Your task to perform on an android device: Empty the shopping cart on amazon.com. Search for usb-c to usb-a on amazon.com, select the first entry, add it to the cart, then select checkout. Image 0: 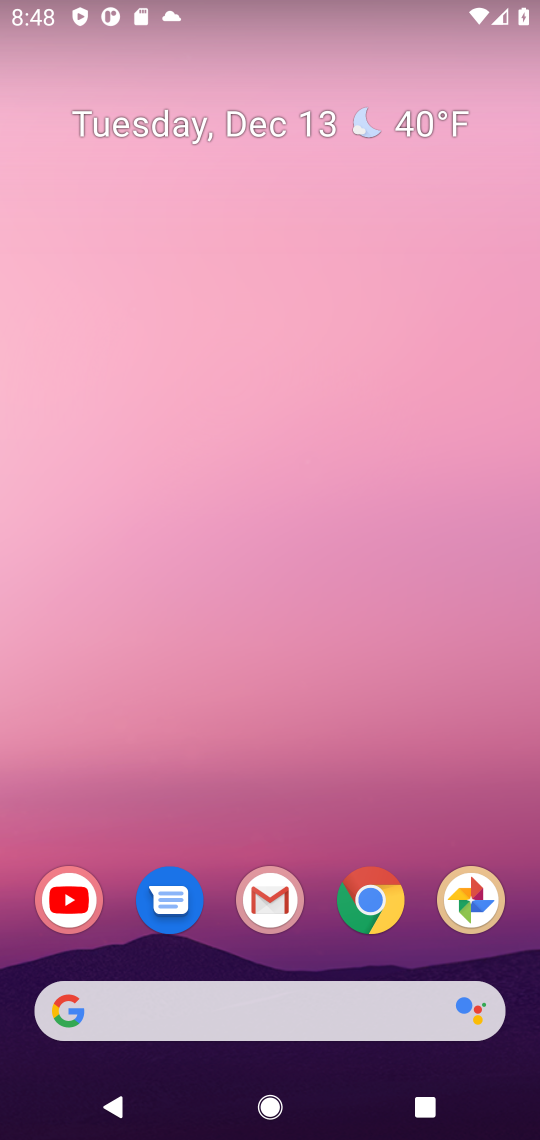
Step 0: click (371, 905)
Your task to perform on an android device: Empty the shopping cart on amazon.com. Search for usb-c to usb-a on amazon.com, select the first entry, add it to the cart, then select checkout. Image 1: 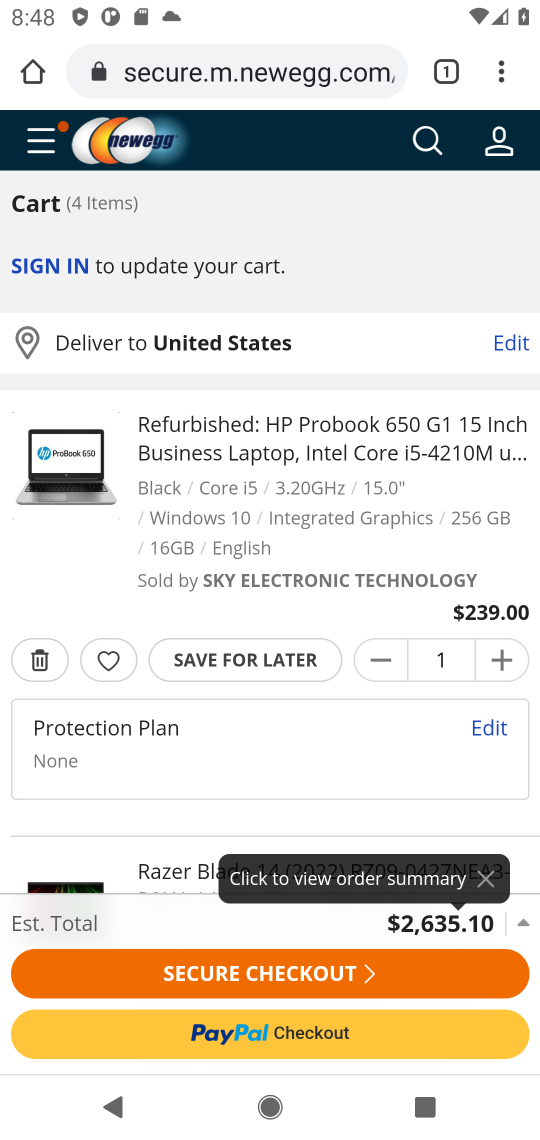
Step 1: click (271, 70)
Your task to perform on an android device: Empty the shopping cart on amazon.com. Search for usb-c to usb-a on amazon.com, select the first entry, add it to the cart, then select checkout. Image 2: 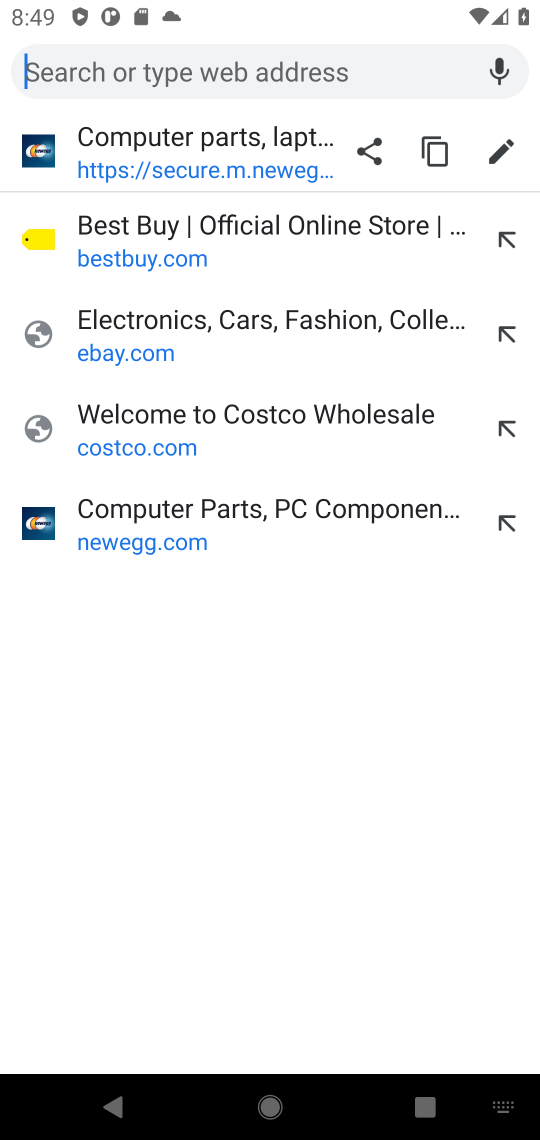
Step 2: type "AMAZON"
Your task to perform on an android device: Empty the shopping cart on amazon.com. Search for usb-c to usb-a on amazon.com, select the first entry, add it to the cart, then select checkout. Image 3: 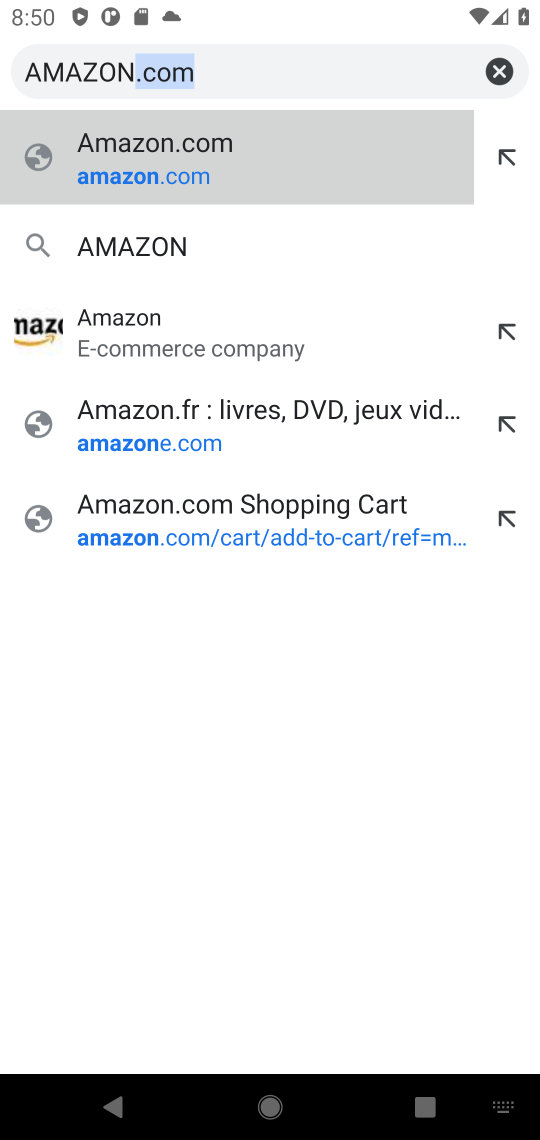
Step 3: click (114, 170)
Your task to perform on an android device: Empty the shopping cart on amazon.com. Search for usb-c to usb-a on amazon.com, select the first entry, add it to the cart, then select checkout. Image 4: 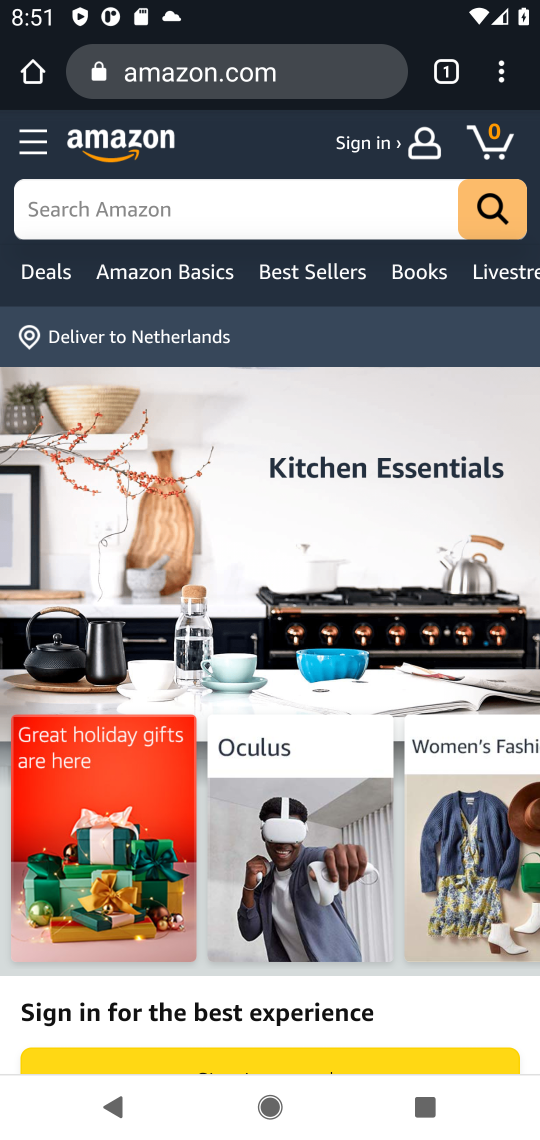
Step 4: click (287, 212)
Your task to perform on an android device: Empty the shopping cart on amazon.com. Search for usb-c to usb-a on amazon.com, select the first entry, add it to the cart, then select checkout. Image 5: 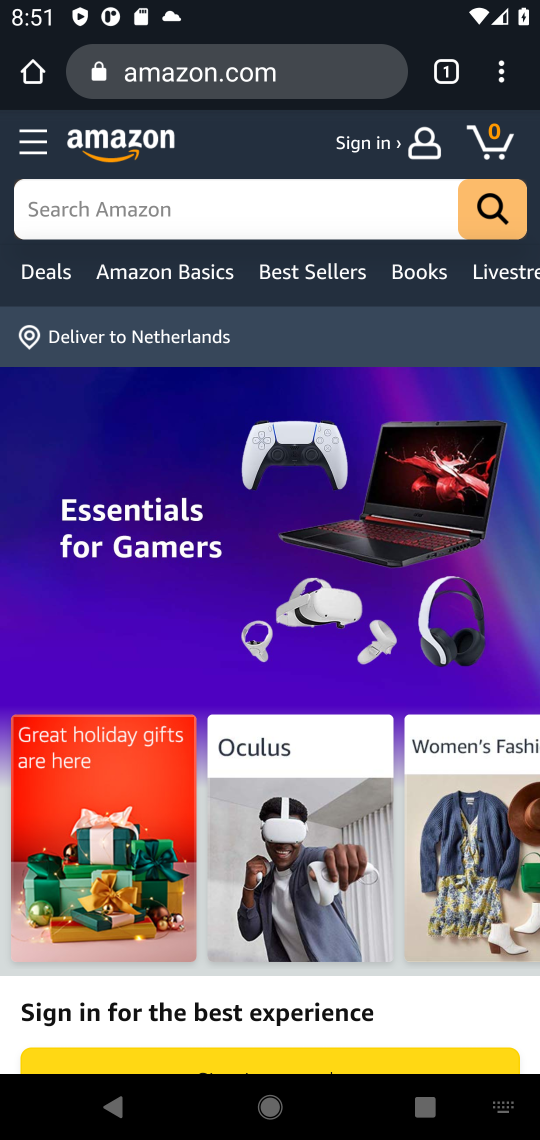
Step 5: type "usb-c to usb-a"
Your task to perform on an android device: Empty the shopping cart on amazon.com. Search for usb-c to usb-a on amazon.com, select the first entry, add it to the cart, then select checkout. Image 6: 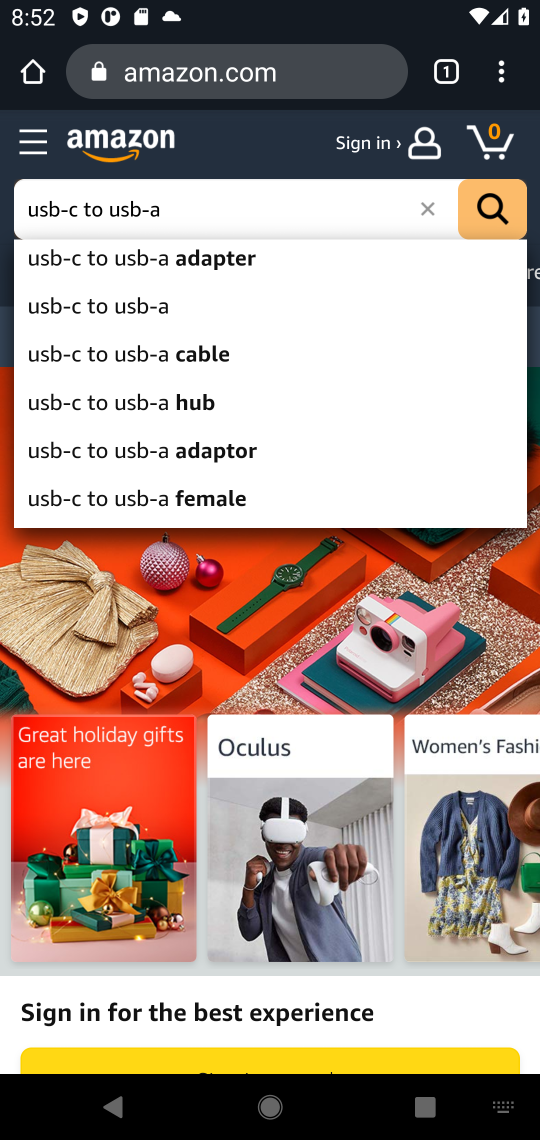
Step 6: click (162, 260)
Your task to perform on an android device: Empty the shopping cart on amazon.com. Search for usb-c to usb-a on amazon.com, select the first entry, add it to the cart, then select checkout. Image 7: 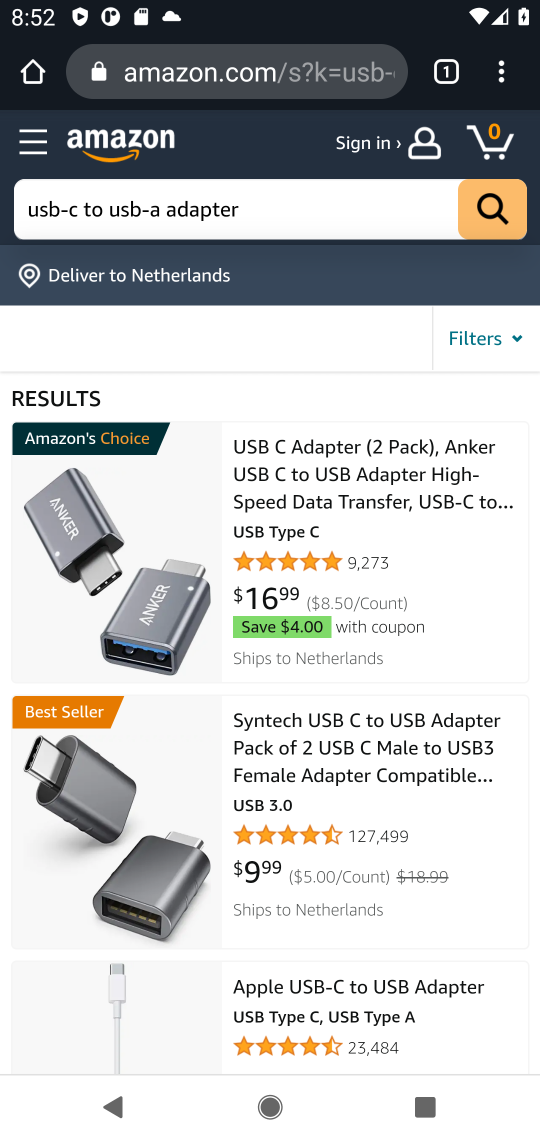
Step 7: click (413, 500)
Your task to perform on an android device: Empty the shopping cart on amazon.com. Search for usb-c to usb-a on amazon.com, select the first entry, add it to the cart, then select checkout. Image 8: 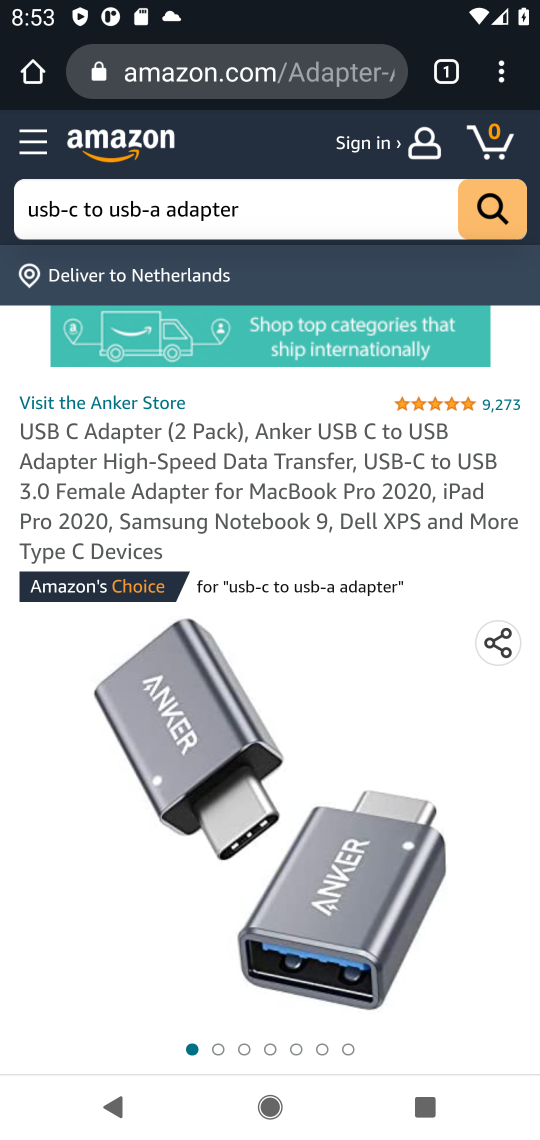
Step 8: drag from (366, 970) to (278, 159)
Your task to perform on an android device: Empty the shopping cart on amazon.com. Search for usb-c to usb-a on amazon.com, select the first entry, add it to the cart, then select checkout. Image 9: 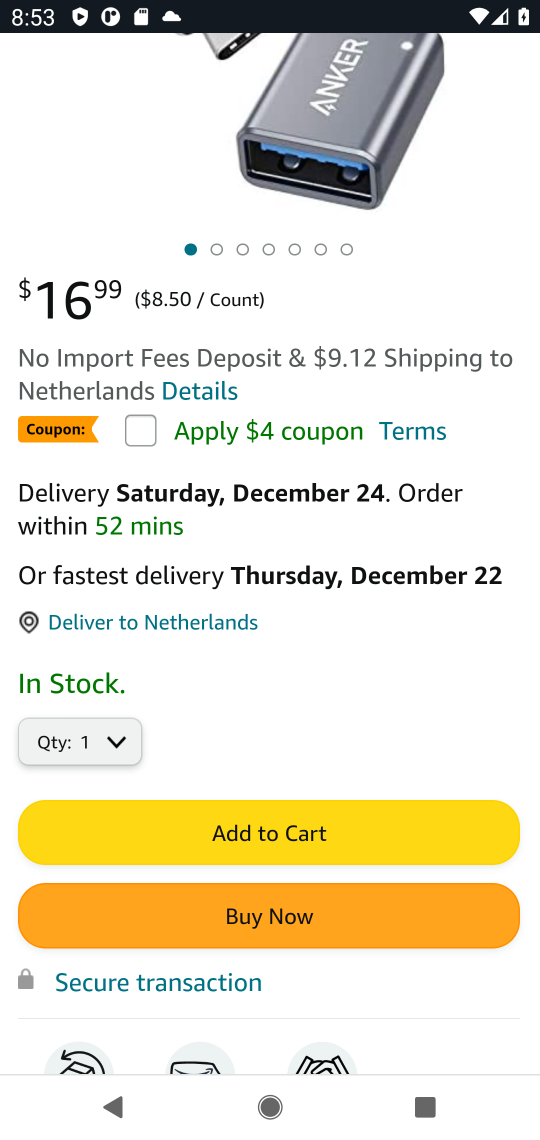
Step 9: click (281, 825)
Your task to perform on an android device: Empty the shopping cart on amazon.com. Search for usb-c to usb-a on amazon.com, select the first entry, add it to the cart, then select checkout. Image 10: 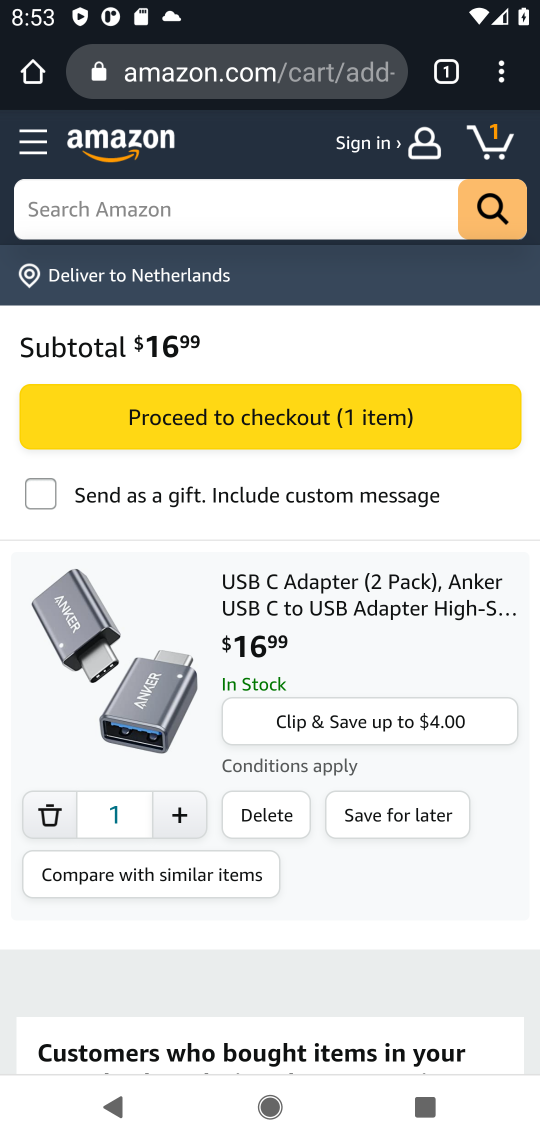
Step 10: click (306, 421)
Your task to perform on an android device: Empty the shopping cart on amazon.com. Search for usb-c to usb-a on amazon.com, select the first entry, add it to the cart, then select checkout. Image 11: 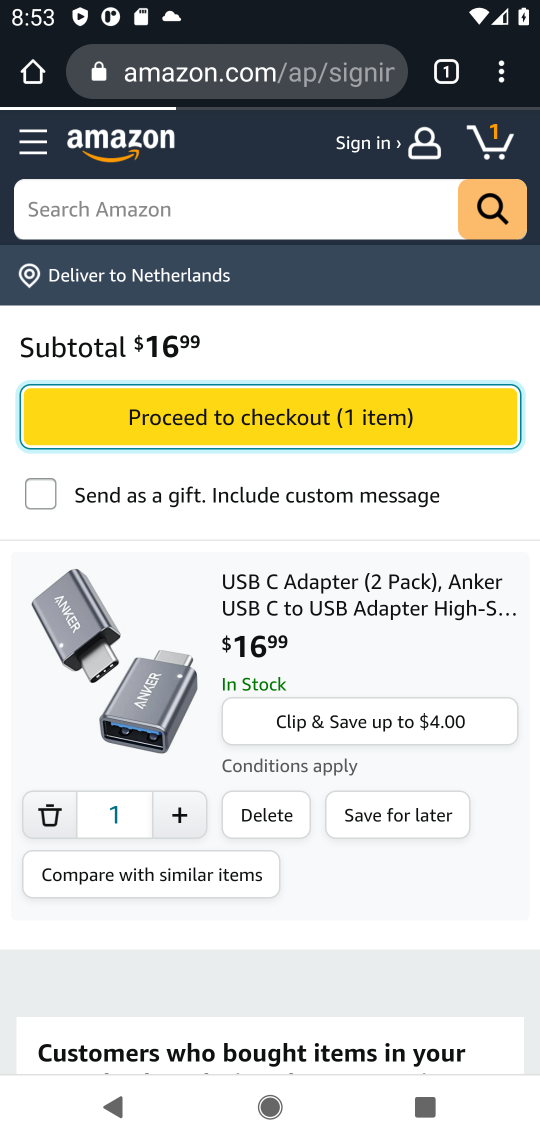
Step 11: task complete